Your task to perform on an android device: check the backup settings in the google photos Image 0: 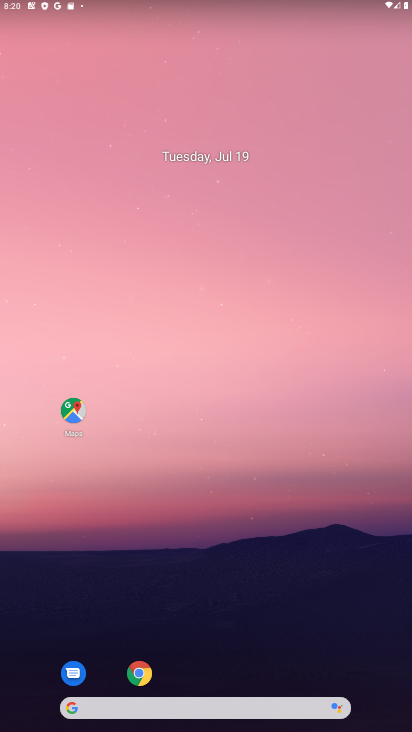
Step 0: drag from (201, 675) to (204, 207)
Your task to perform on an android device: check the backup settings in the google photos Image 1: 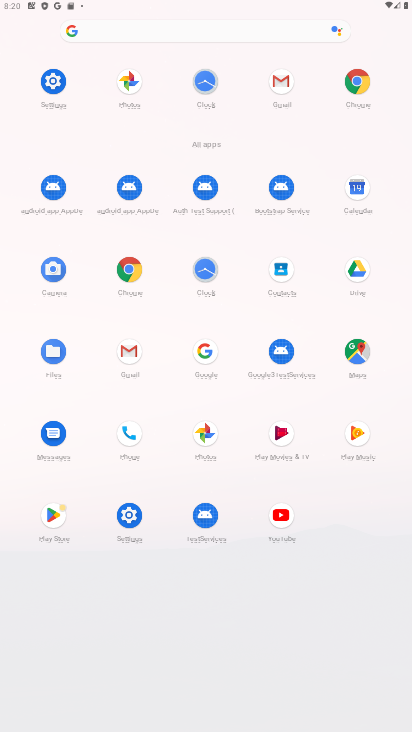
Step 1: click (211, 434)
Your task to perform on an android device: check the backup settings in the google photos Image 2: 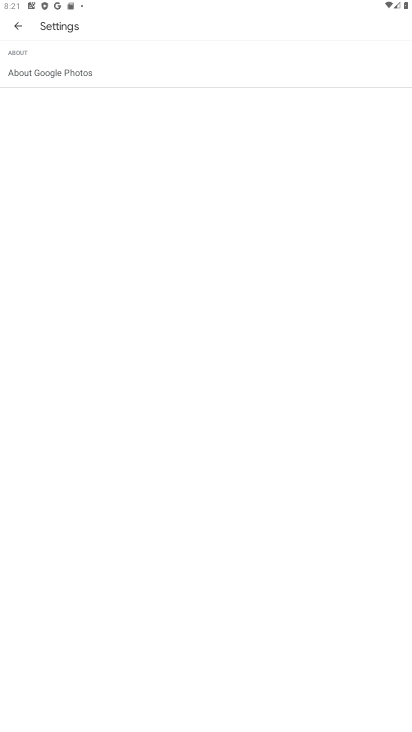
Step 2: task complete